Your task to perform on an android device: visit the assistant section in the google photos Image 0: 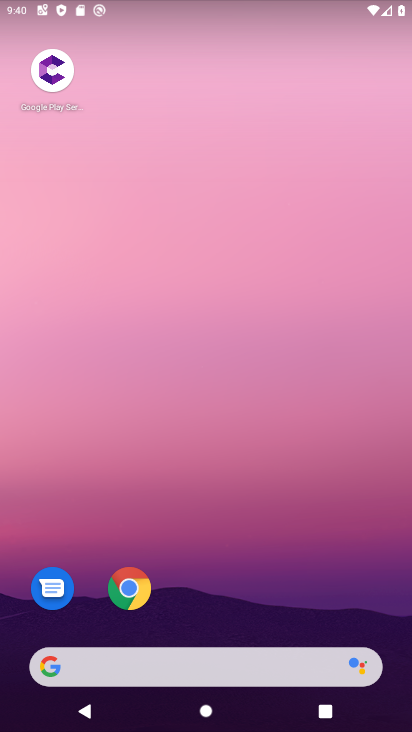
Step 0: drag from (103, 454) to (278, 55)
Your task to perform on an android device: visit the assistant section in the google photos Image 1: 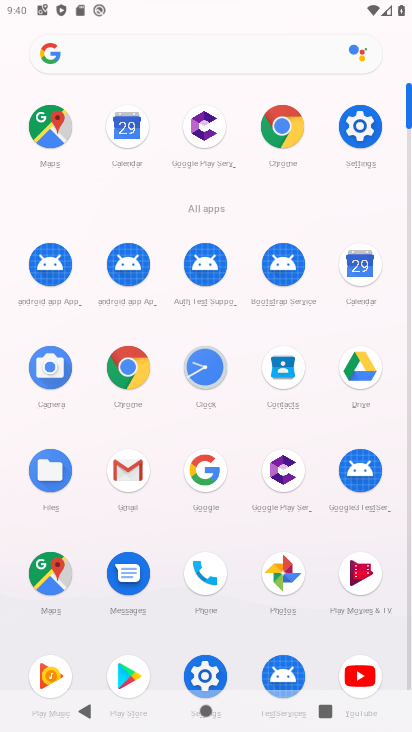
Step 1: click (273, 575)
Your task to perform on an android device: visit the assistant section in the google photos Image 2: 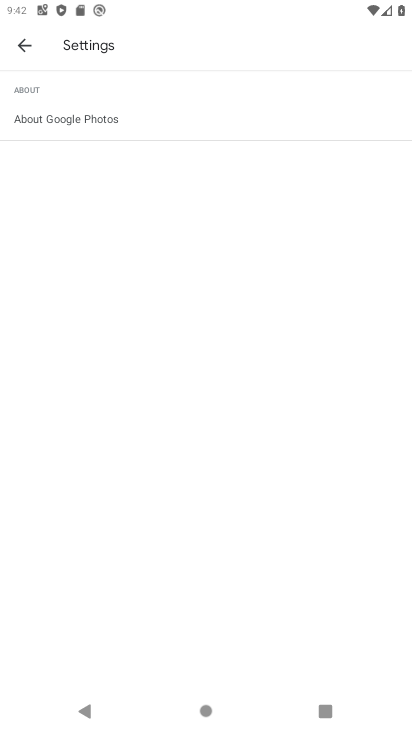
Step 2: press home button
Your task to perform on an android device: visit the assistant section in the google photos Image 3: 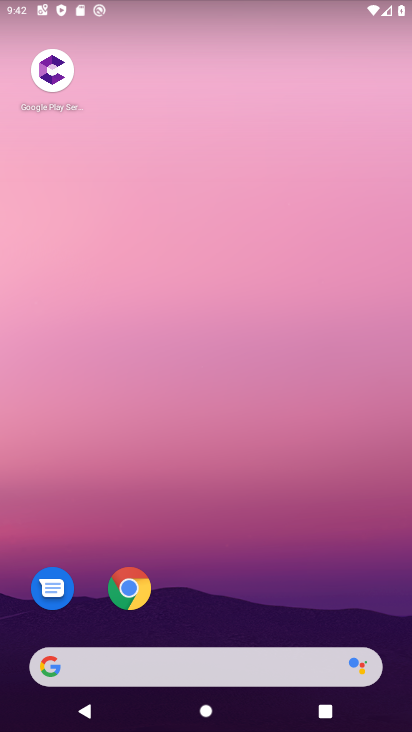
Step 3: drag from (20, 513) to (299, 83)
Your task to perform on an android device: visit the assistant section in the google photos Image 4: 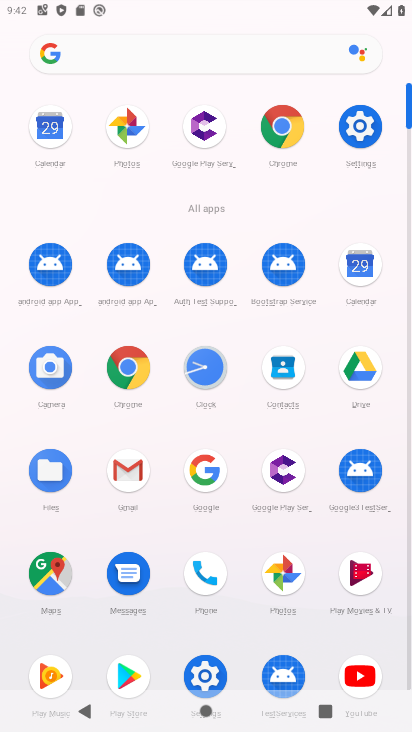
Step 4: click (272, 555)
Your task to perform on an android device: visit the assistant section in the google photos Image 5: 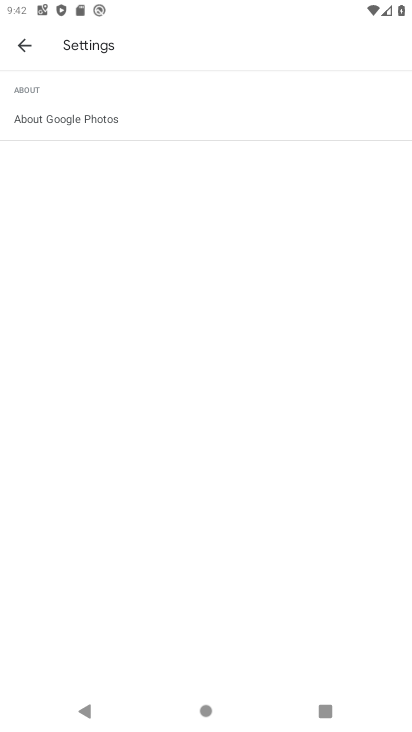
Step 5: click (32, 43)
Your task to perform on an android device: visit the assistant section in the google photos Image 6: 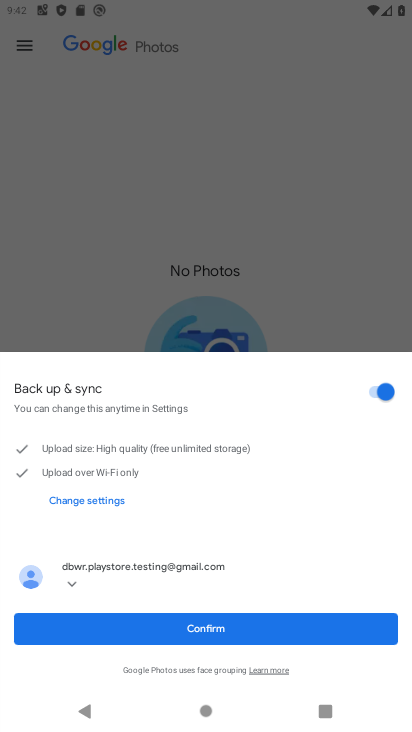
Step 6: click (199, 633)
Your task to perform on an android device: visit the assistant section in the google photos Image 7: 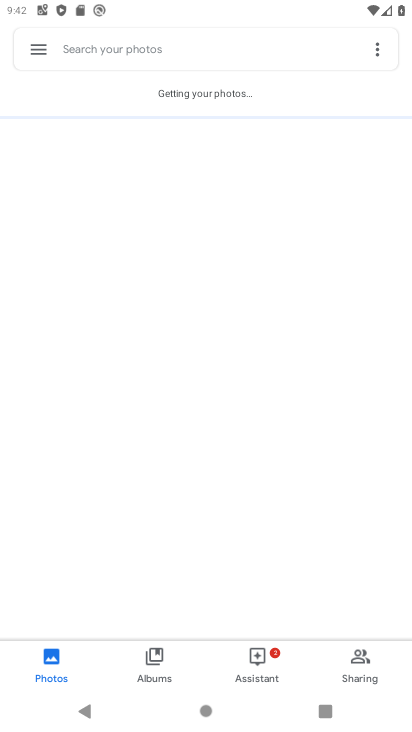
Step 7: click (255, 660)
Your task to perform on an android device: visit the assistant section in the google photos Image 8: 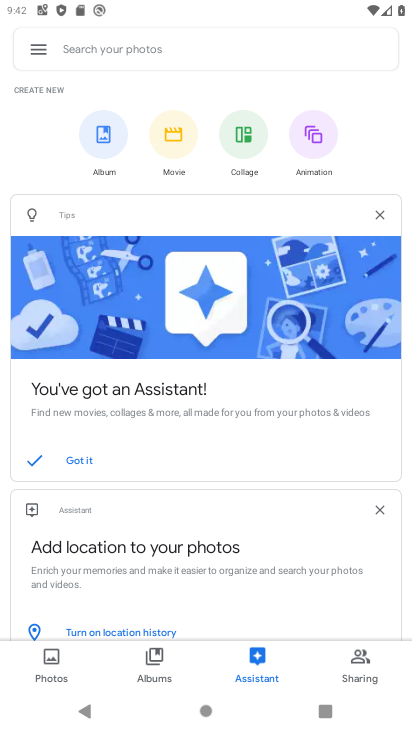
Step 8: task complete